Your task to perform on an android device: When is my next meeting? Image 0: 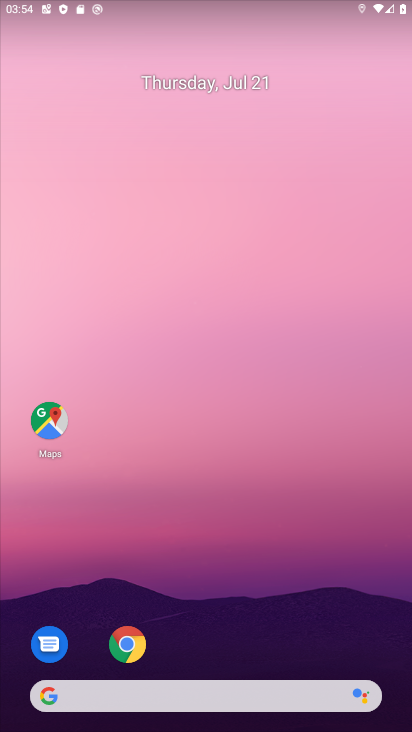
Step 0: drag from (294, 670) to (286, 49)
Your task to perform on an android device: When is my next meeting? Image 1: 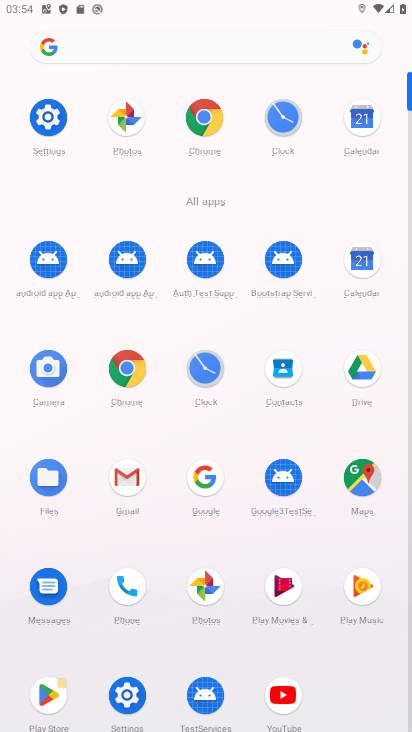
Step 1: click (353, 120)
Your task to perform on an android device: When is my next meeting? Image 2: 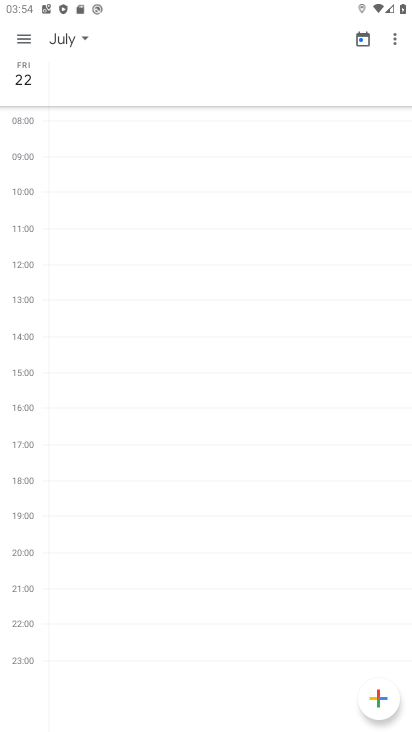
Step 2: click (28, 41)
Your task to perform on an android device: When is my next meeting? Image 3: 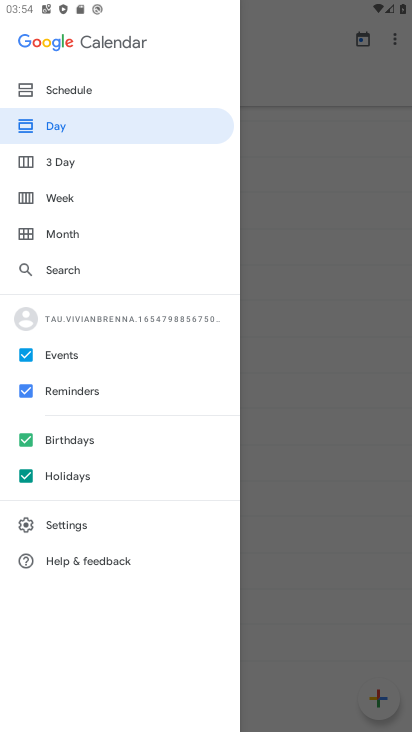
Step 3: click (26, 479)
Your task to perform on an android device: When is my next meeting? Image 4: 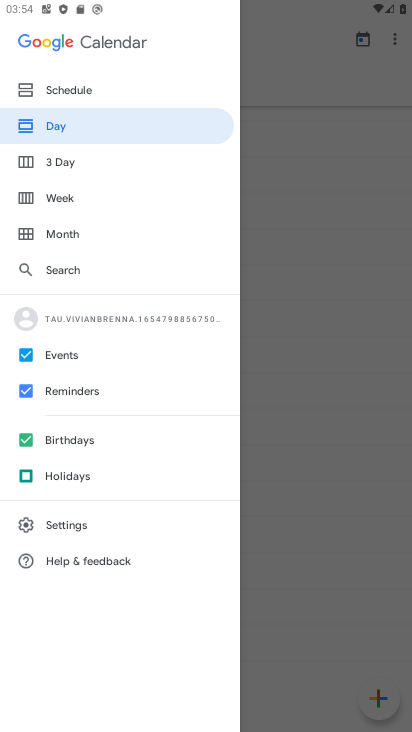
Step 4: click (22, 435)
Your task to perform on an android device: When is my next meeting? Image 5: 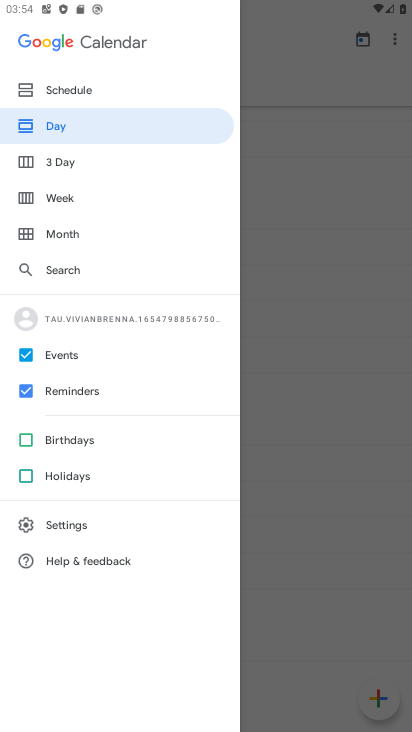
Step 5: click (29, 383)
Your task to perform on an android device: When is my next meeting? Image 6: 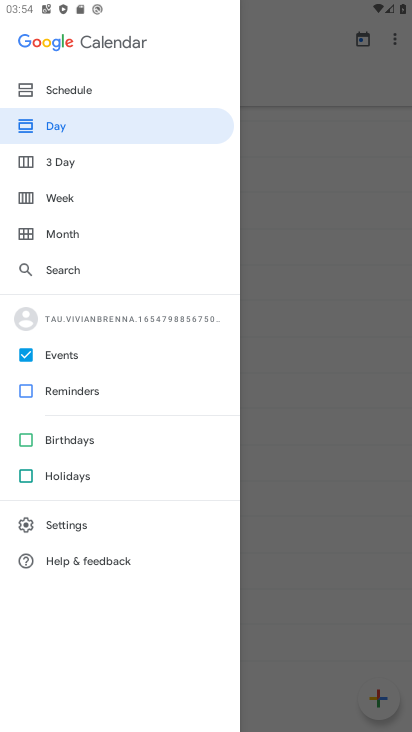
Step 6: click (57, 90)
Your task to perform on an android device: When is my next meeting? Image 7: 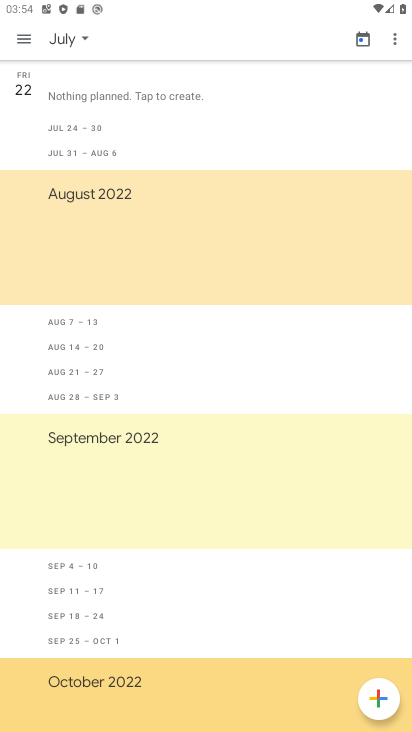
Step 7: click (84, 38)
Your task to perform on an android device: When is my next meeting? Image 8: 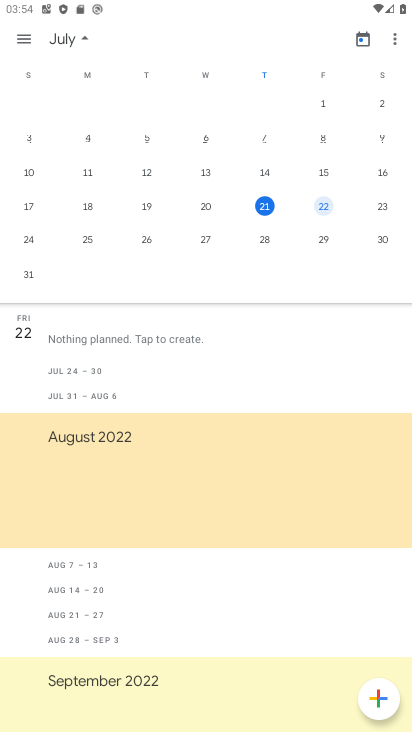
Step 8: click (264, 204)
Your task to perform on an android device: When is my next meeting? Image 9: 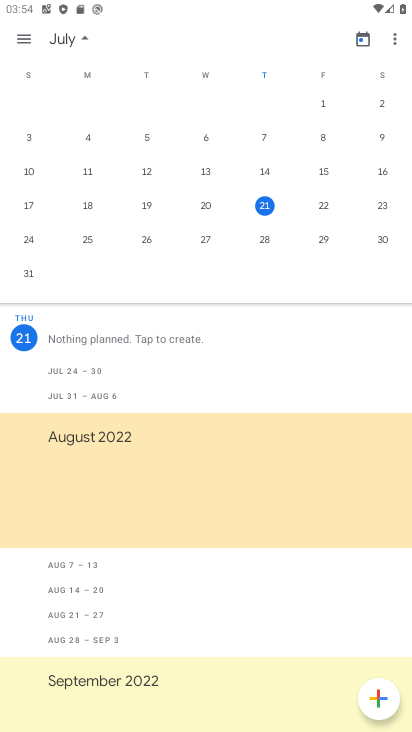
Step 9: drag from (135, 360) to (134, 123)
Your task to perform on an android device: When is my next meeting? Image 10: 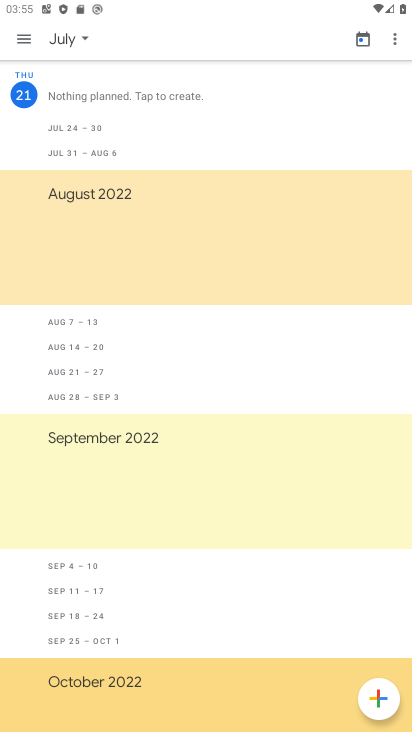
Step 10: drag from (271, 440) to (267, 238)
Your task to perform on an android device: When is my next meeting? Image 11: 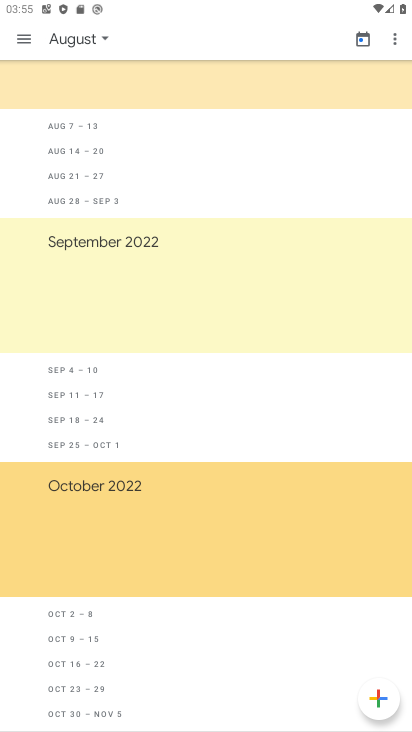
Step 11: drag from (225, 268) to (234, 547)
Your task to perform on an android device: When is my next meeting? Image 12: 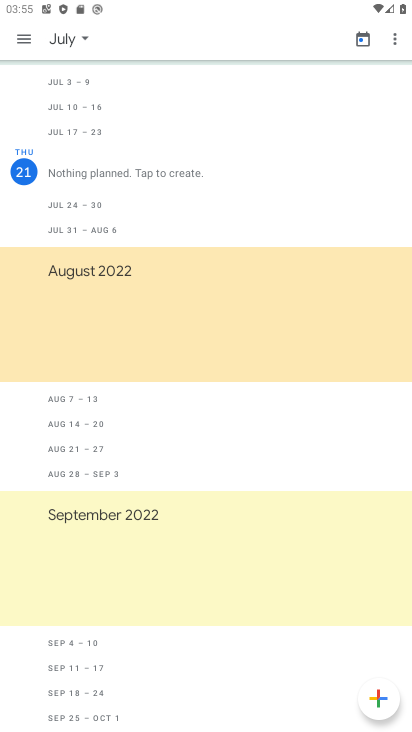
Step 12: click (86, 38)
Your task to perform on an android device: When is my next meeting? Image 13: 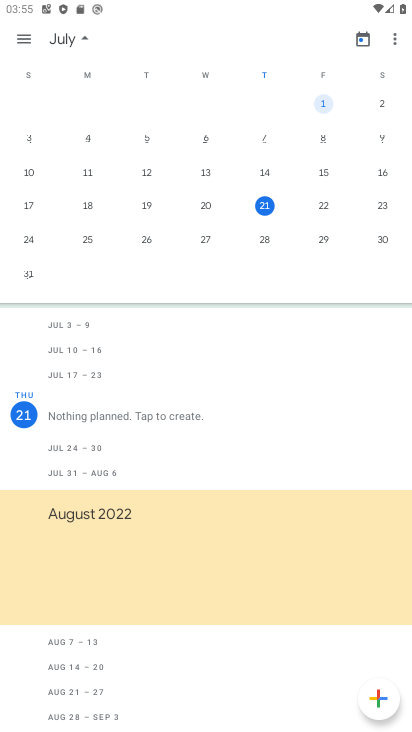
Step 13: click (369, 40)
Your task to perform on an android device: When is my next meeting? Image 14: 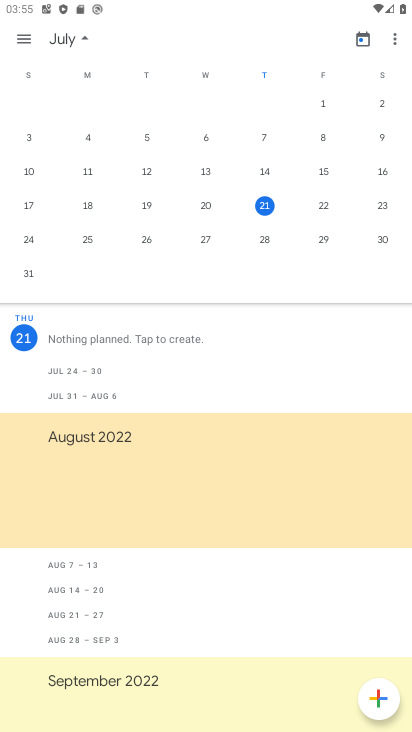
Step 14: click (362, 40)
Your task to perform on an android device: When is my next meeting? Image 15: 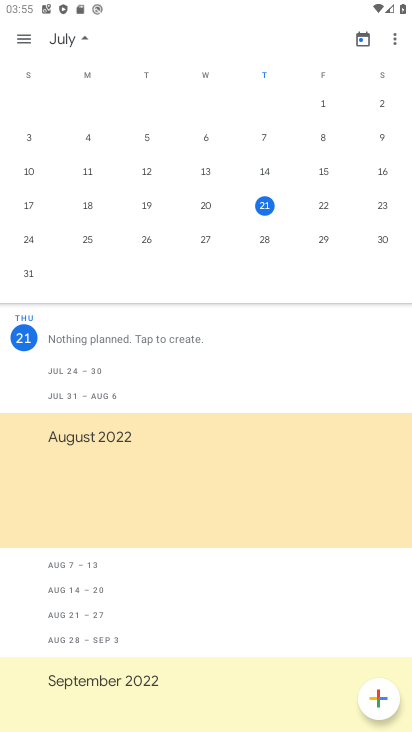
Step 15: click (18, 41)
Your task to perform on an android device: When is my next meeting? Image 16: 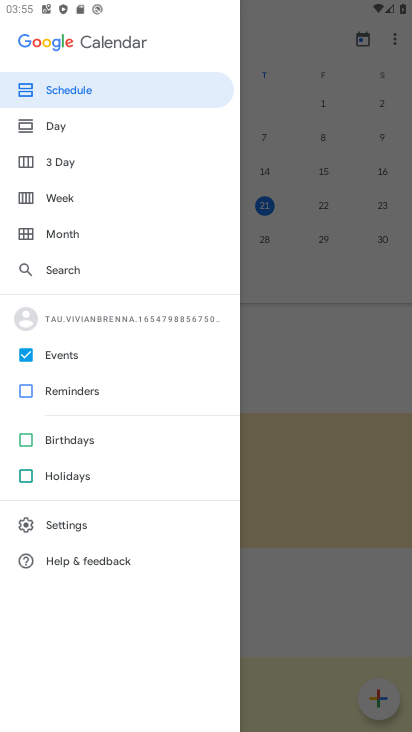
Step 16: click (44, 350)
Your task to perform on an android device: When is my next meeting? Image 17: 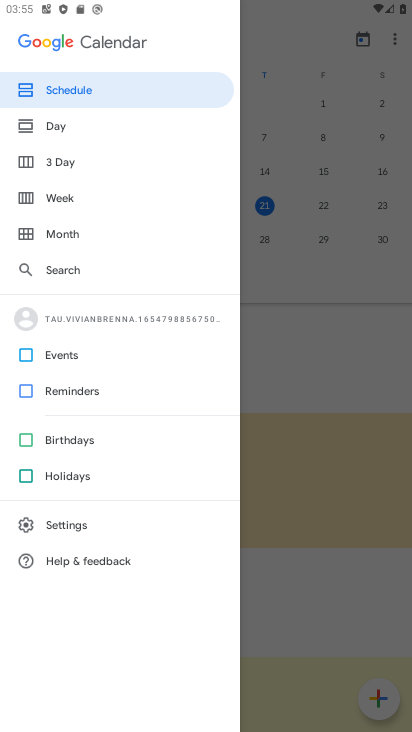
Step 17: click (44, 350)
Your task to perform on an android device: When is my next meeting? Image 18: 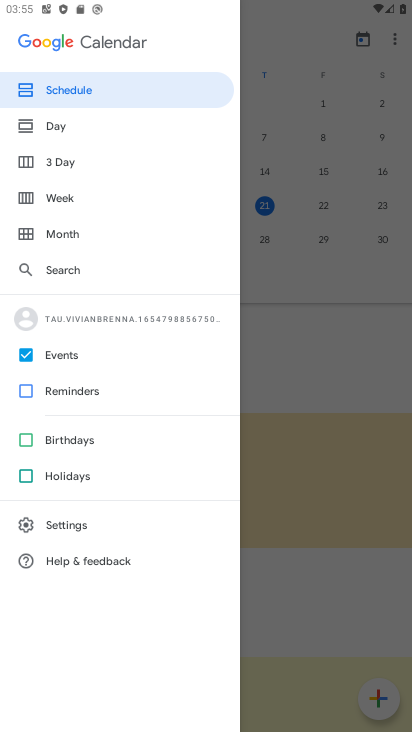
Step 18: click (49, 92)
Your task to perform on an android device: When is my next meeting? Image 19: 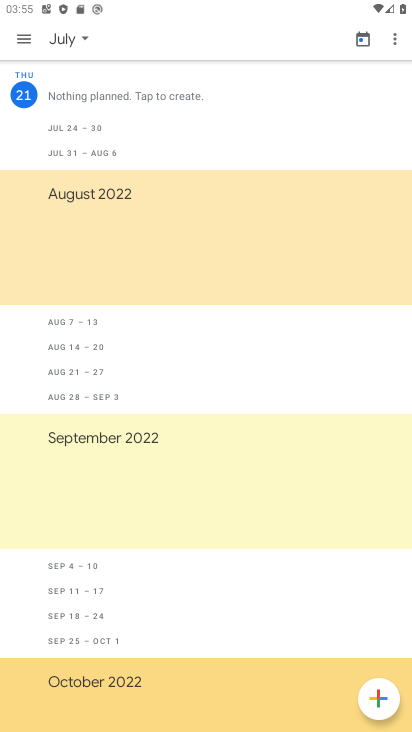
Step 19: task complete